Your task to perform on an android device: delete a single message in the gmail app Image 0: 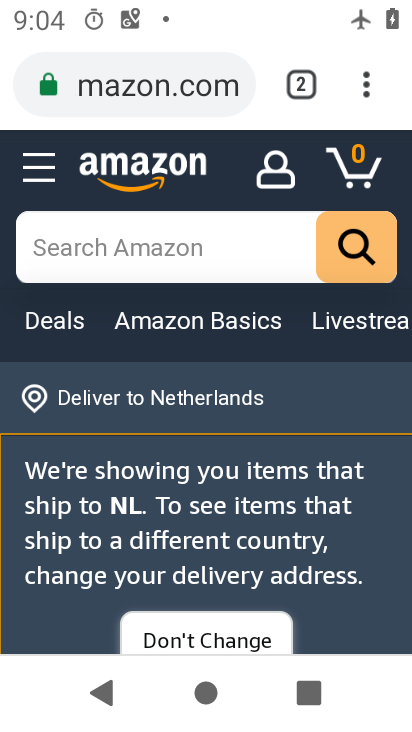
Step 0: press home button
Your task to perform on an android device: delete a single message in the gmail app Image 1: 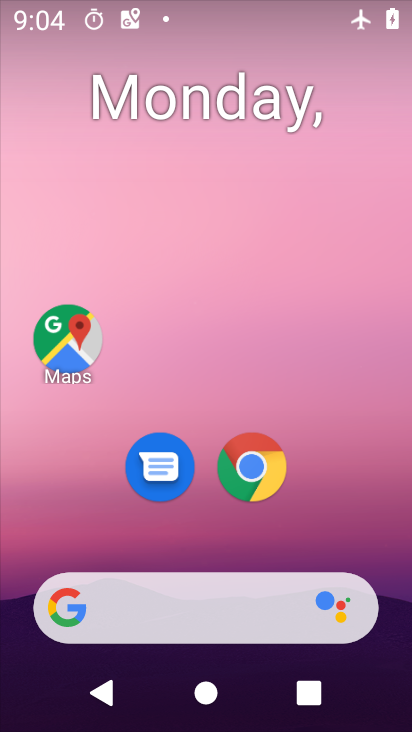
Step 1: drag from (196, 536) to (231, 45)
Your task to perform on an android device: delete a single message in the gmail app Image 2: 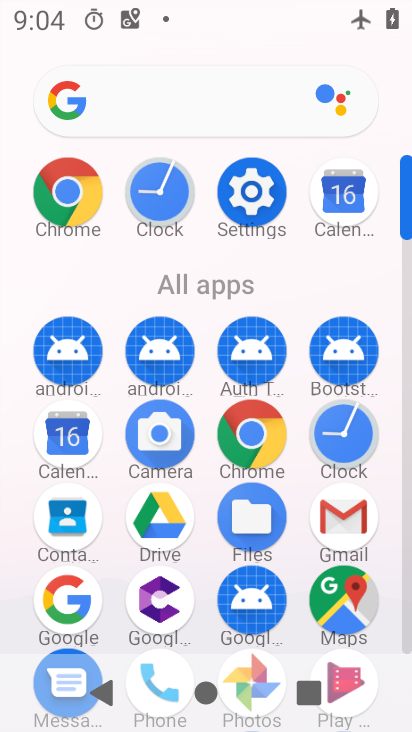
Step 2: click (338, 506)
Your task to perform on an android device: delete a single message in the gmail app Image 3: 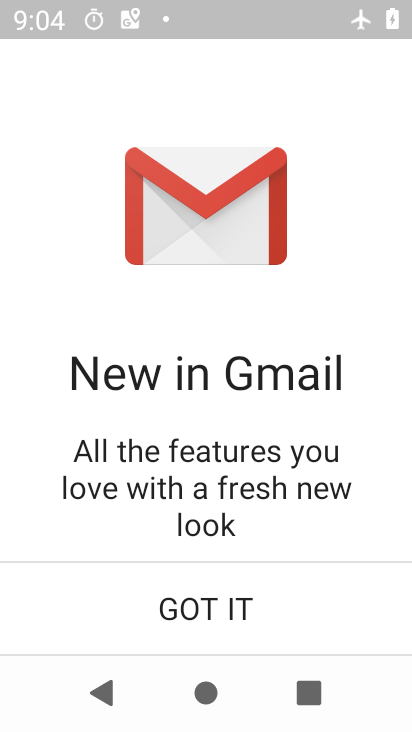
Step 3: click (211, 599)
Your task to perform on an android device: delete a single message in the gmail app Image 4: 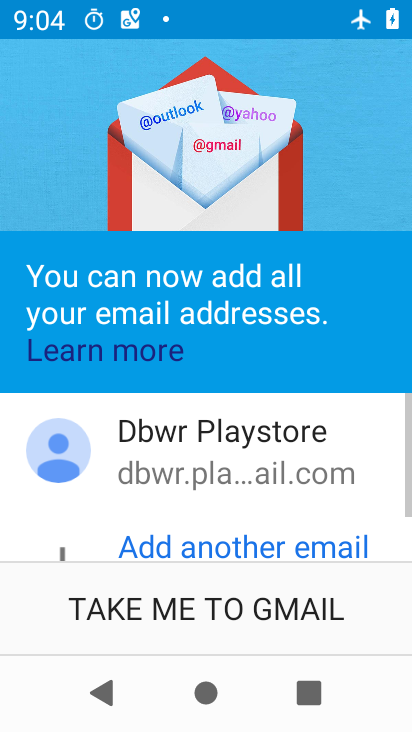
Step 4: click (211, 599)
Your task to perform on an android device: delete a single message in the gmail app Image 5: 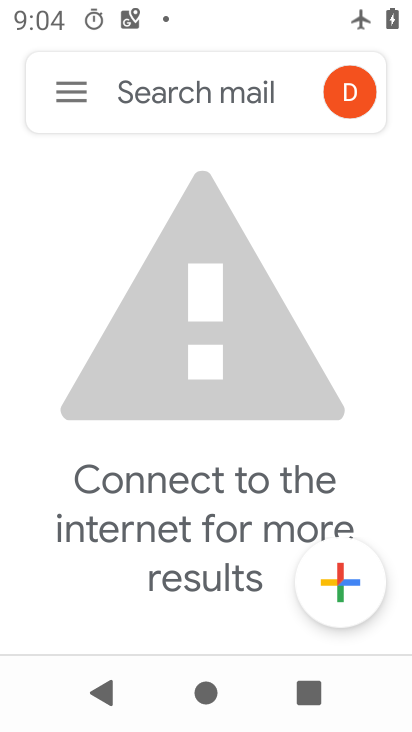
Step 5: task complete